Your task to perform on an android device: Search for acer predator on amazon.com, select the first entry, and add it to the cart. Image 0: 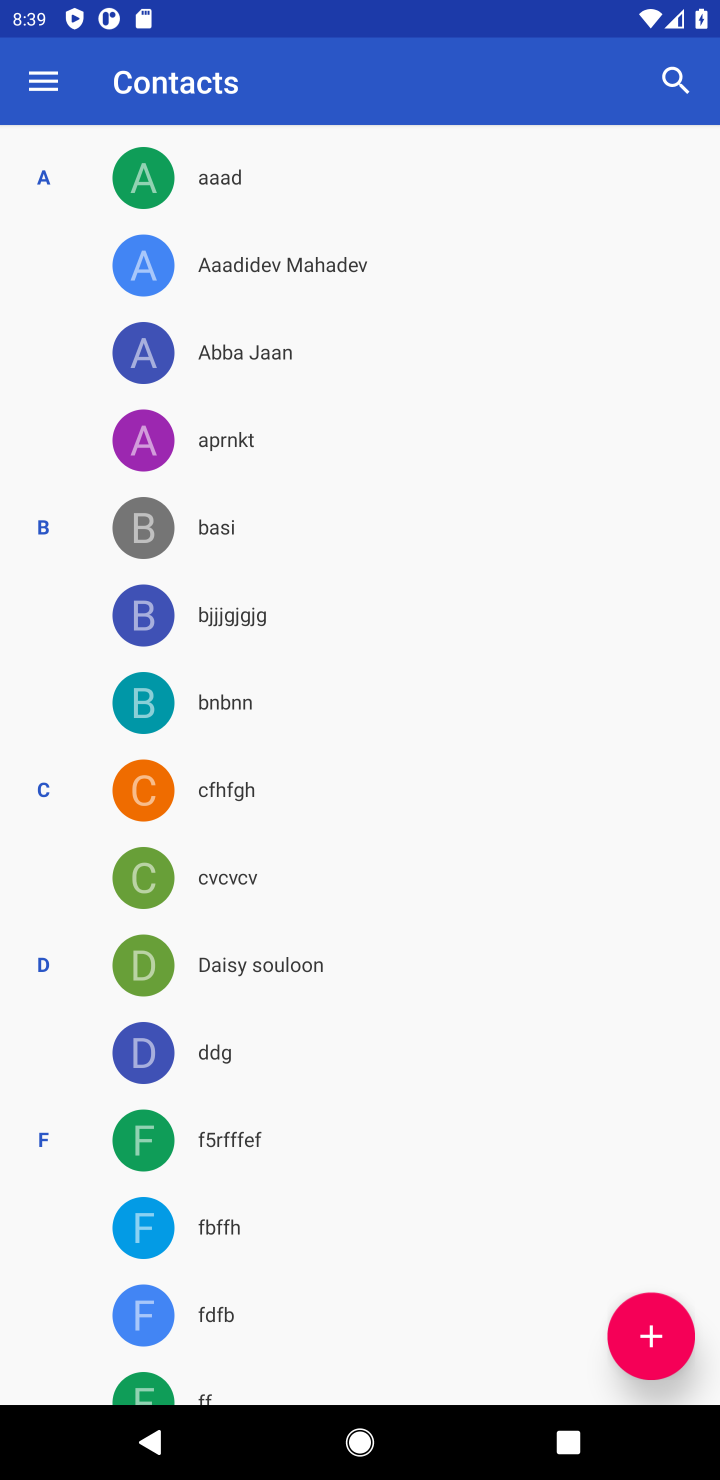
Step 0: press home button
Your task to perform on an android device: Search for acer predator on amazon.com, select the first entry, and add it to the cart. Image 1: 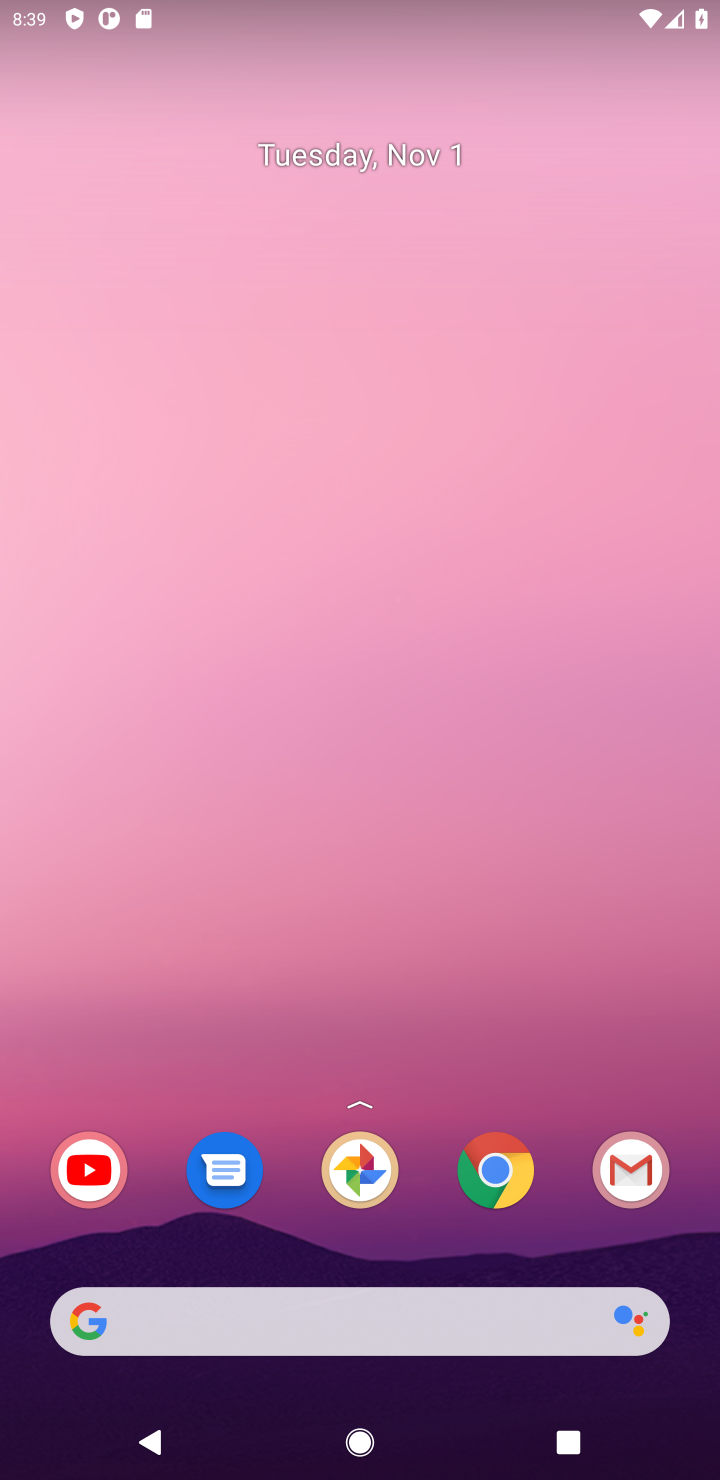
Step 1: click (508, 1184)
Your task to perform on an android device: Search for acer predator on amazon.com, select the first entry, and add it to the cart. Image 2: 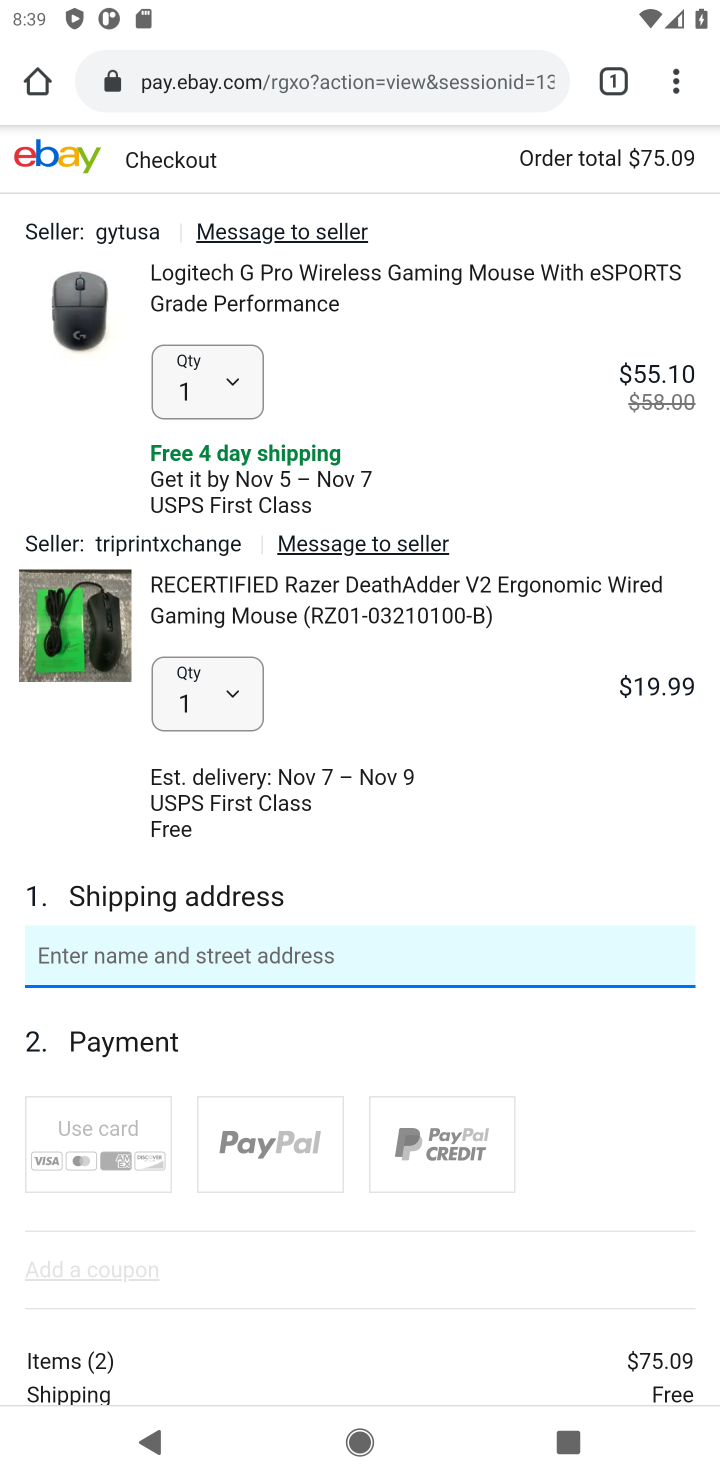
Step 2: click (336, 72)
Your task to perform on an android device: Search for acer predator on amazon.com, select the first entry, and add it to the cart. Image 3: 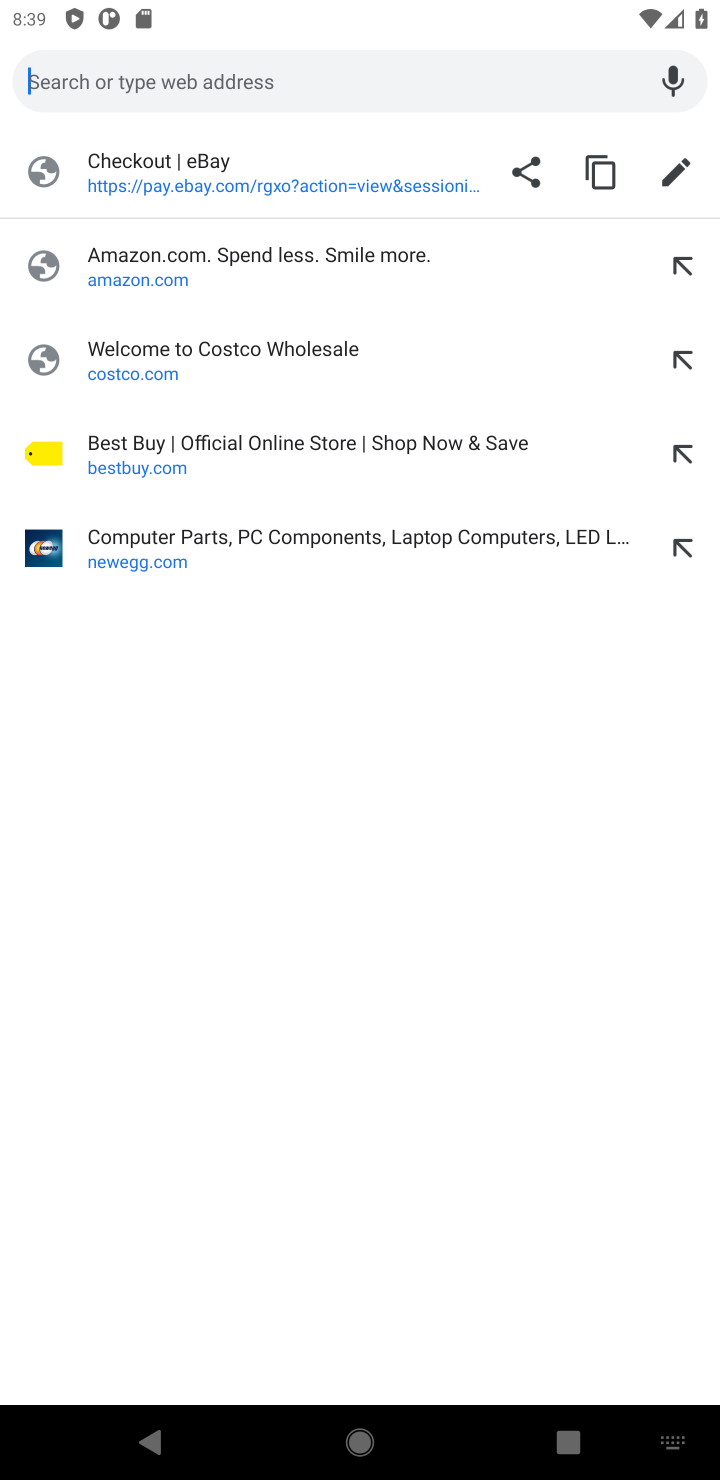
Step 3: type "amazon.com"
Your task to perform on an android device: Search for acer predator on amazon.com, select the first entry, and add it to the cart. Image 4: 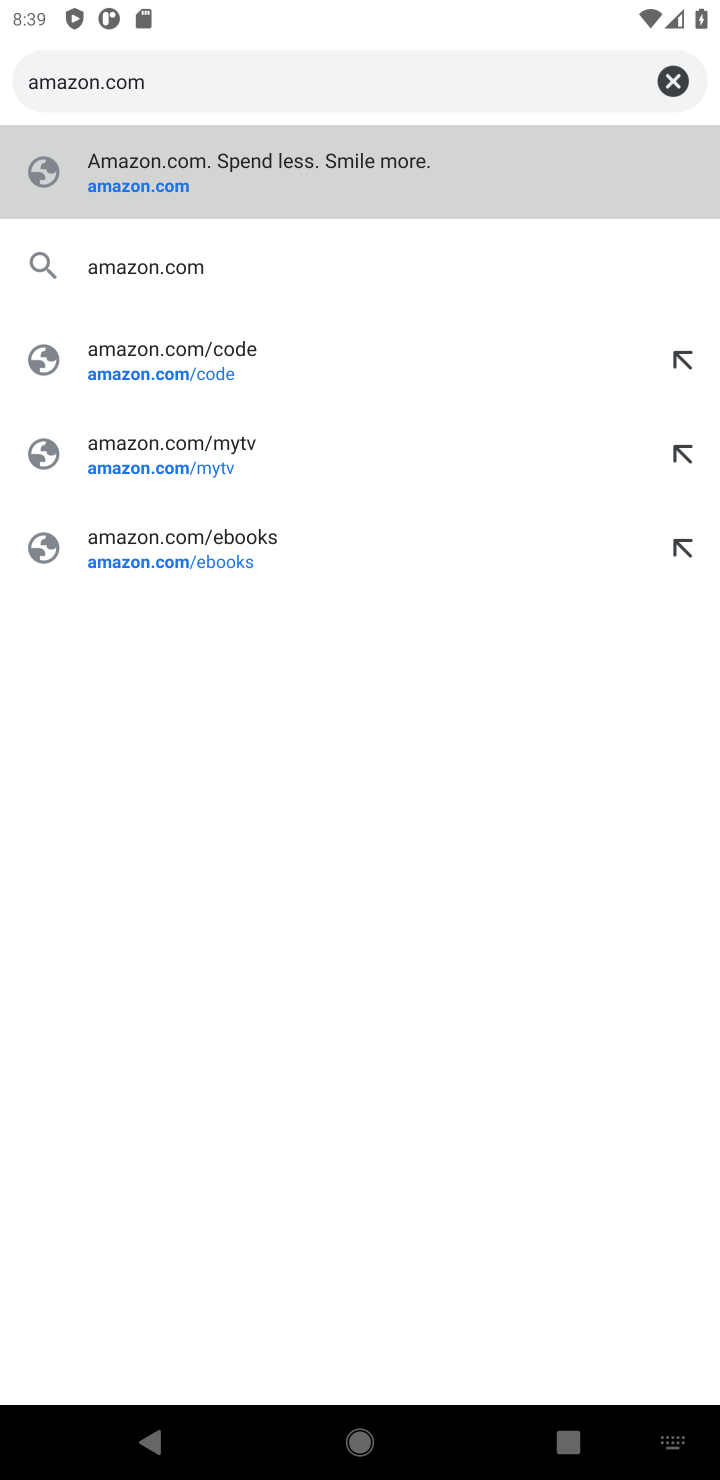
Step 4: type ""
Your task to perform on an android device: Search for acer predator on amazon.com, select the first entry, and add it to the cart. Image 5: 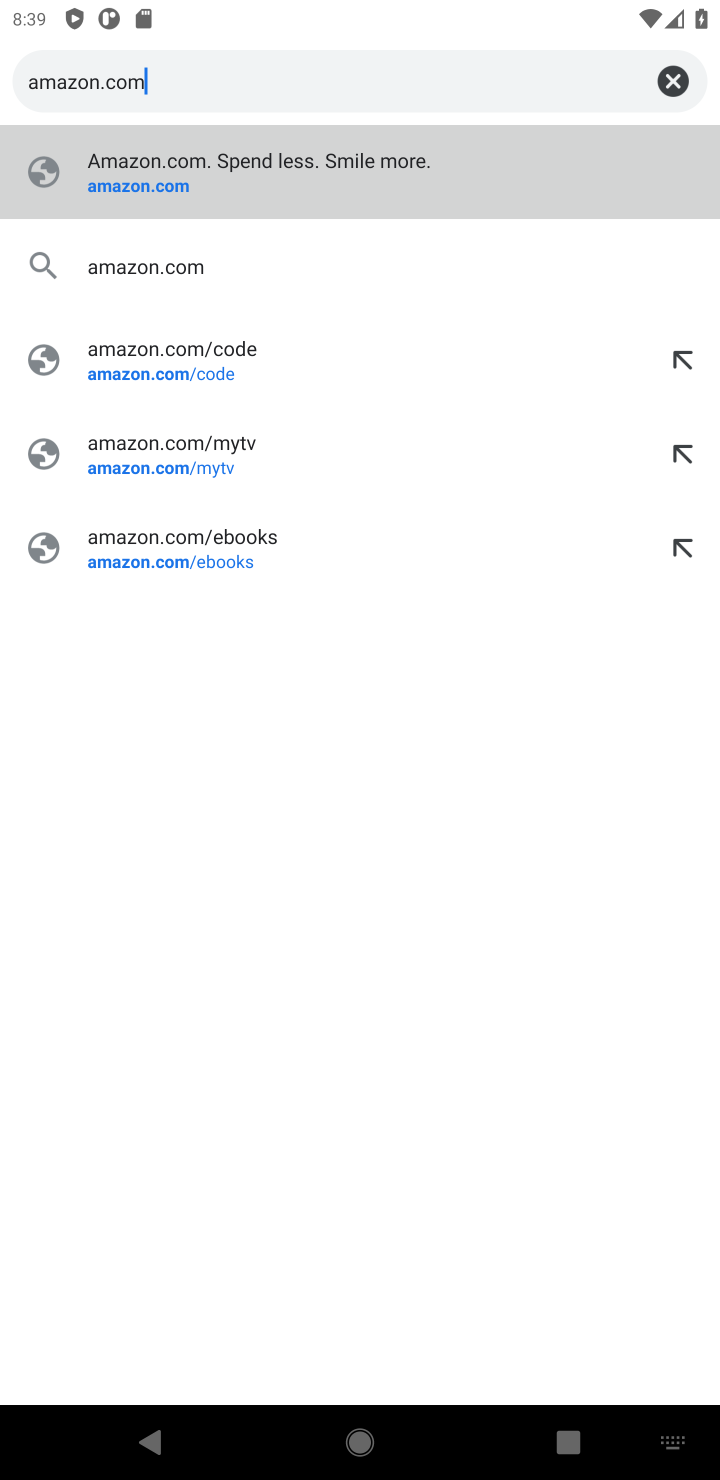
Step 5: type ""
Your task to perform on an android device: Search for acer predator on amazon.com, select the first entry, and add it to the cart. Image 6: 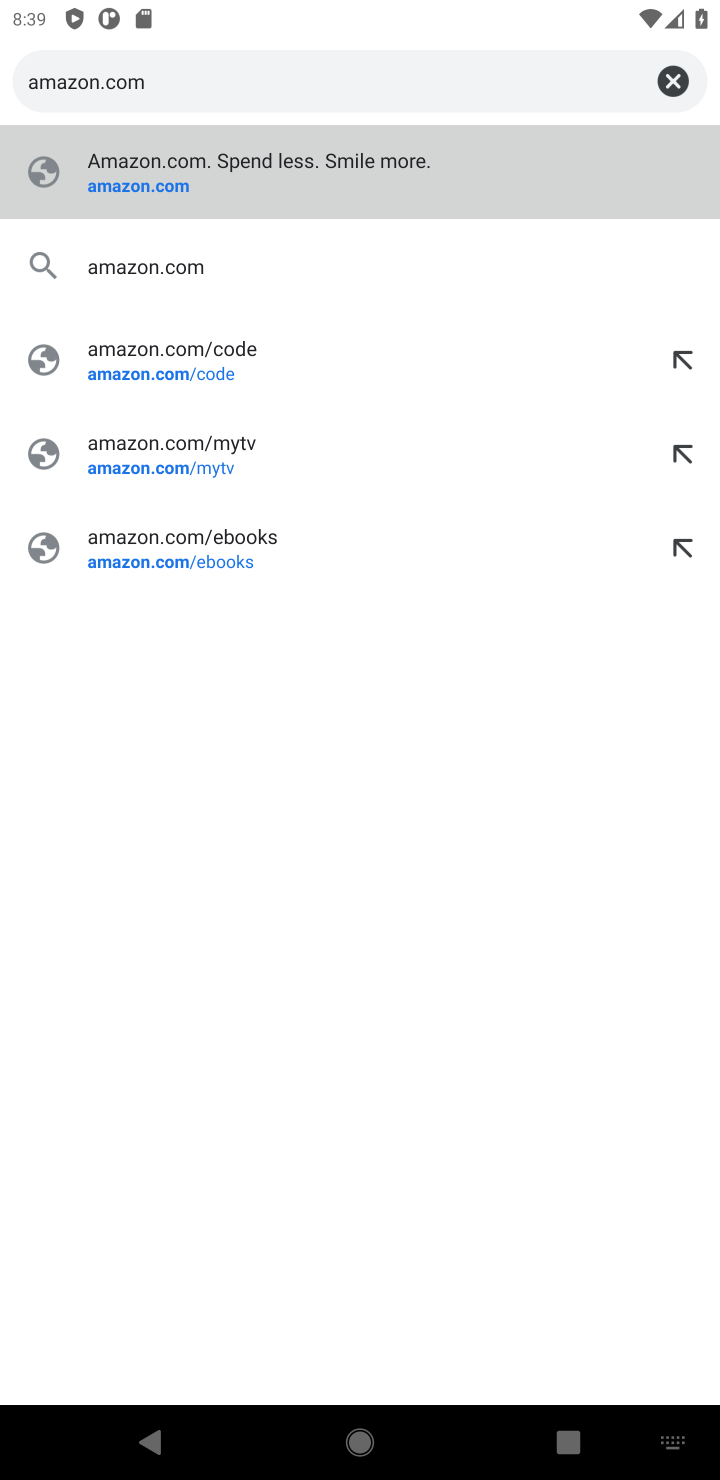
Step 6: press enter
Your task to perform on an android device: Search for acer predator on amazon.com, select the first entry, and add it to the cart. Image 7: 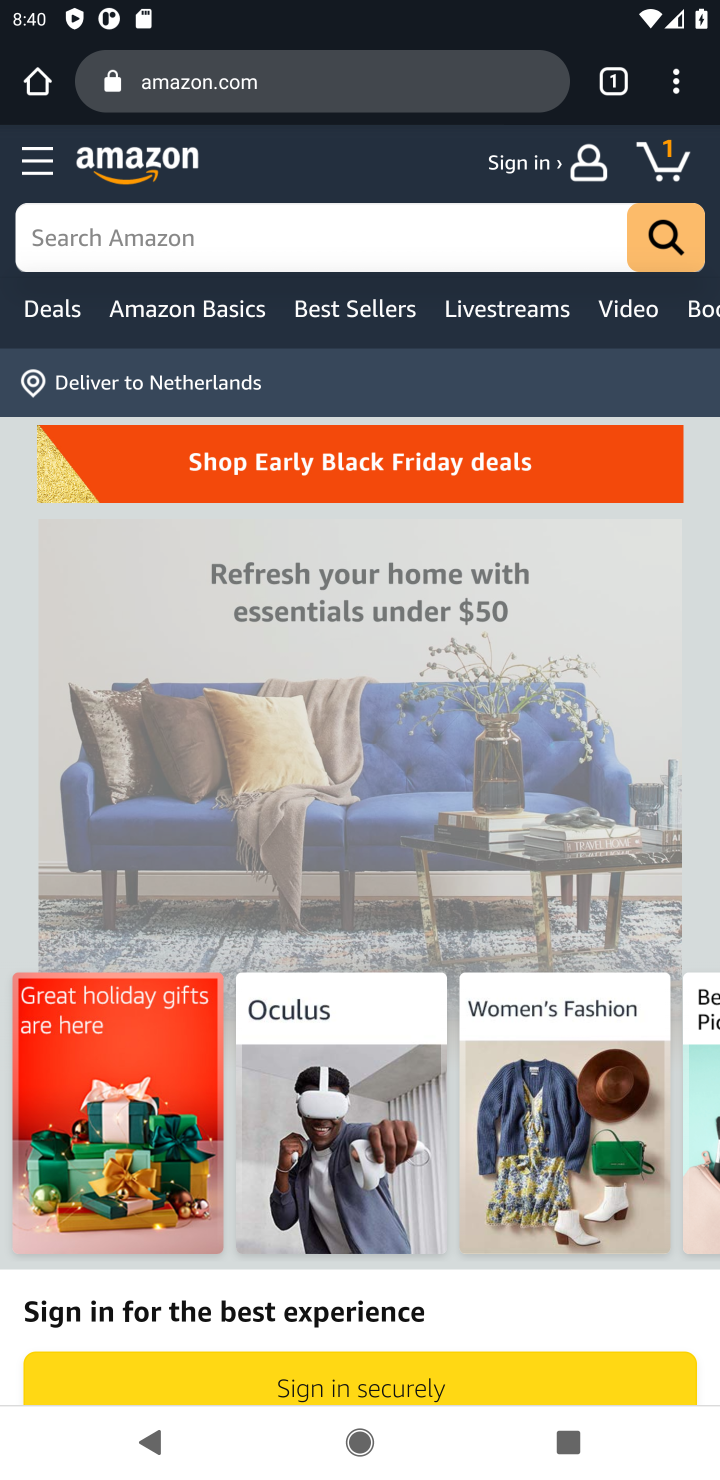
Step 7: click (299, 245)
Your task to perform on an android device: Search for acer predator on amazon.com, select the first entry, and add it to the cart. Image 8: 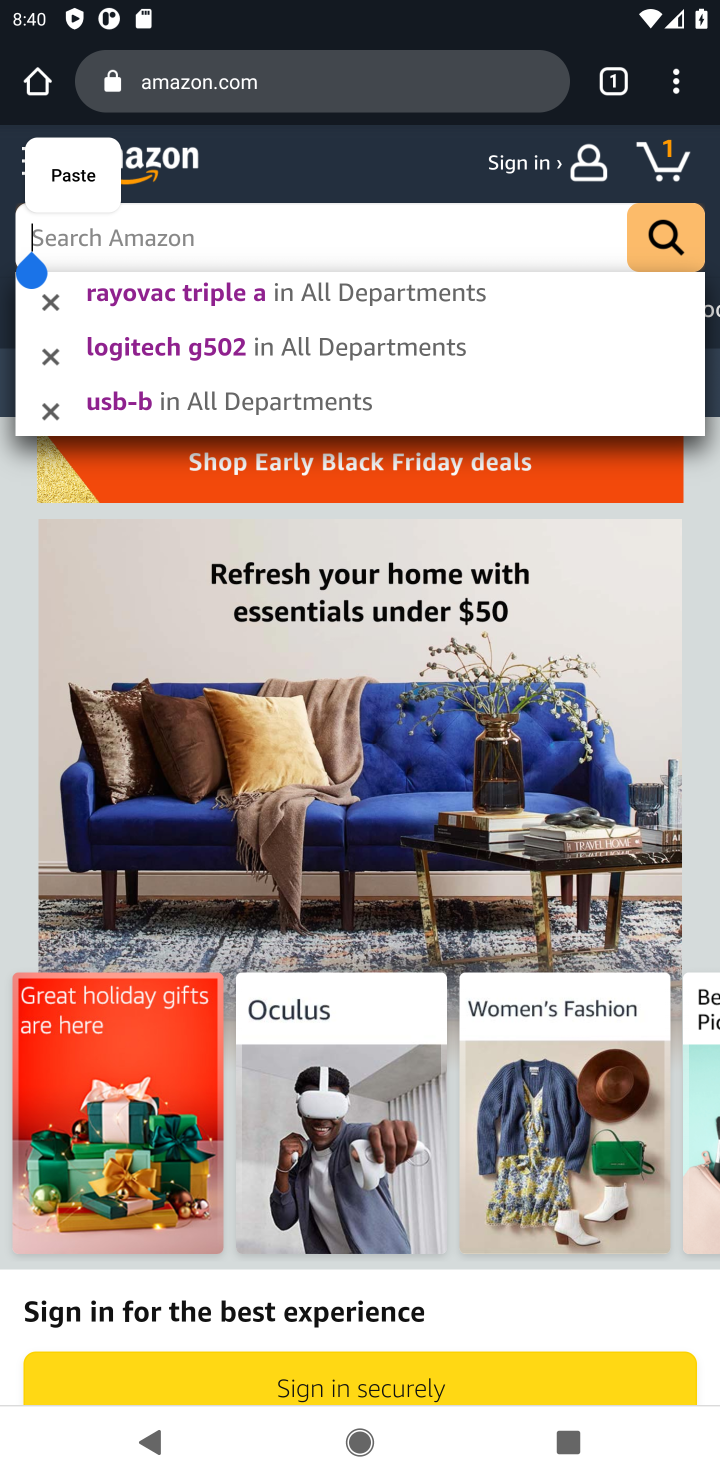
Step 8: click (226, 1164)
Your task to perform on an android device: Search for acer predator on amazon.com, select the first entry, and add it to the cart. Image 9: 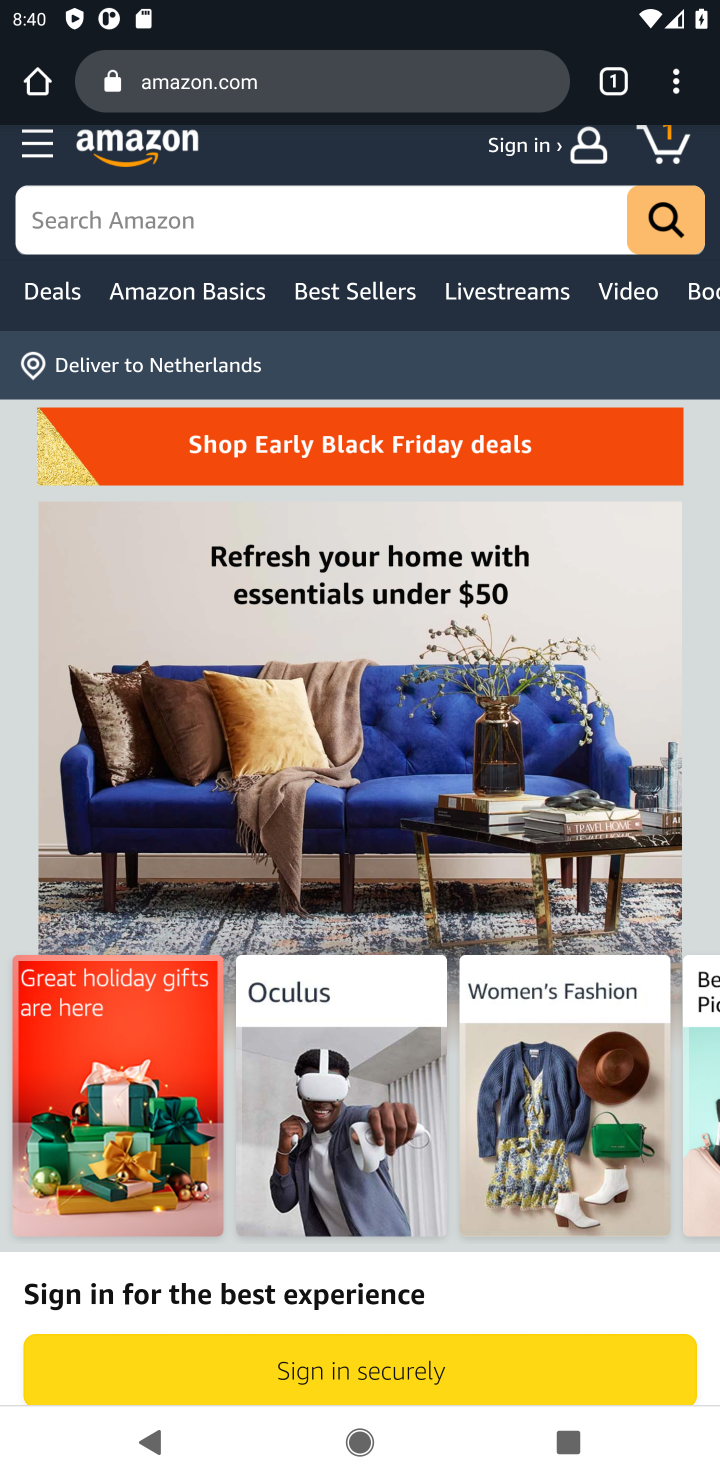
Step 9: click (314, 227)
Your task to perform on an android device: Search for acer predator on amazon.com, select the first entry, and add it to the cart. Image 10: 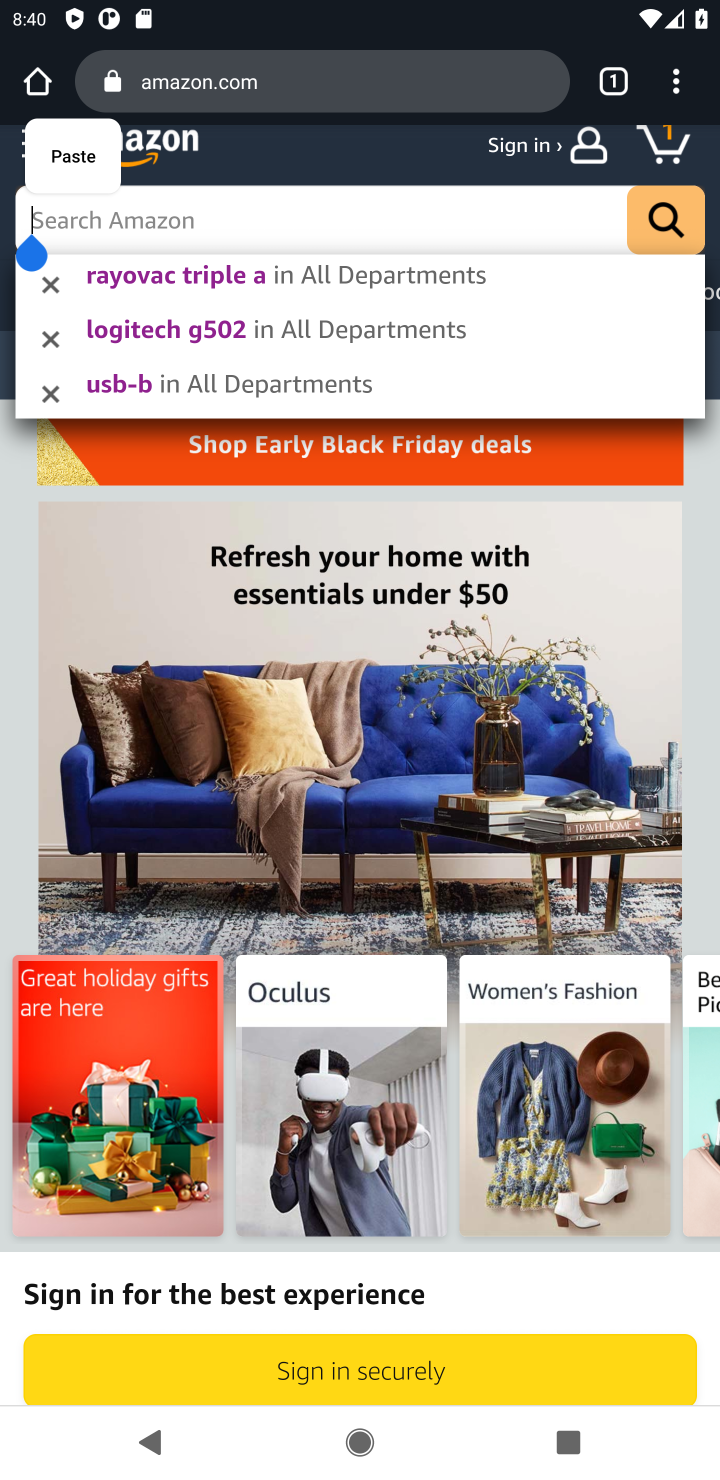
Step 10: type "acer predator"
Your task to perform on an android device: Search for acer predator on amazon.com, select the first entry, and add it to the cart. Image 11: 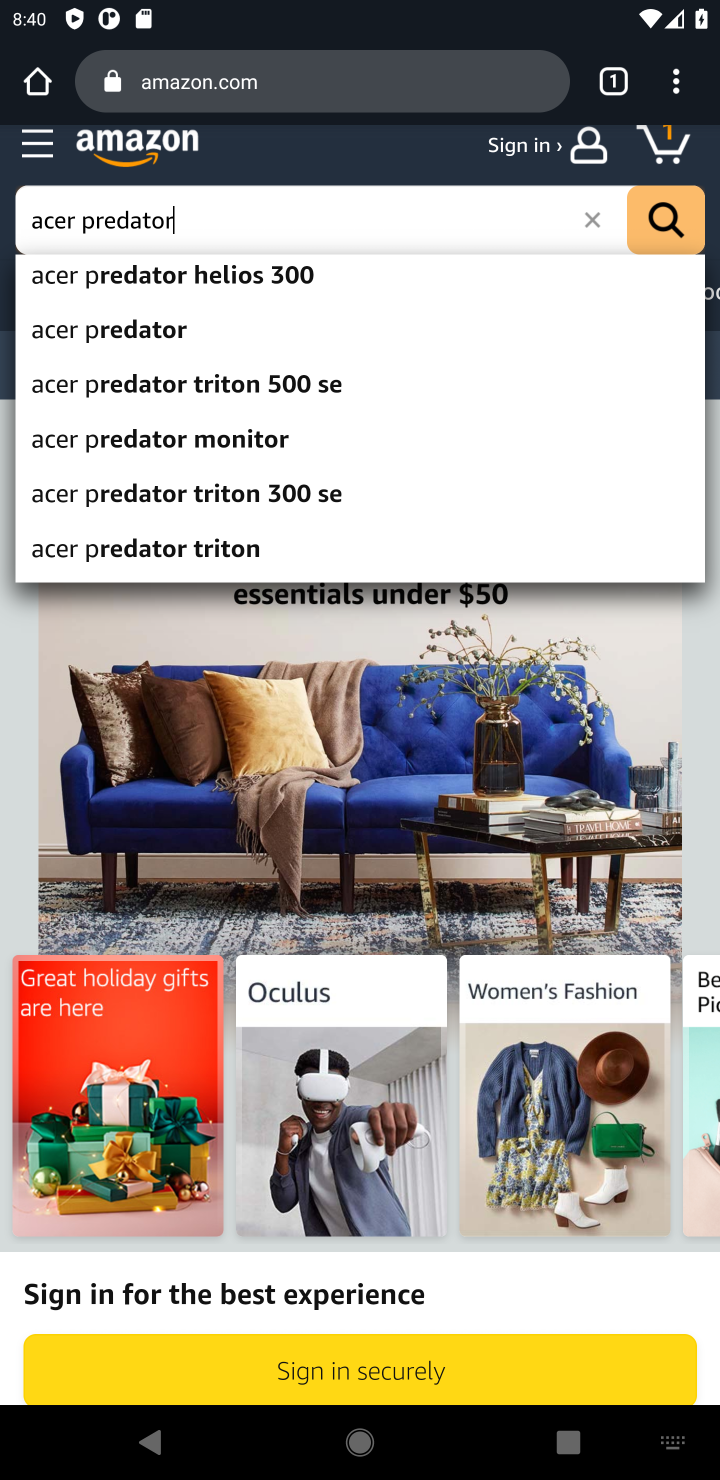
Step 11: type ""
Your task to perform on an android device: Search for acer predator on amazon.com, select the first entry, and add it to the cart. Image 12: 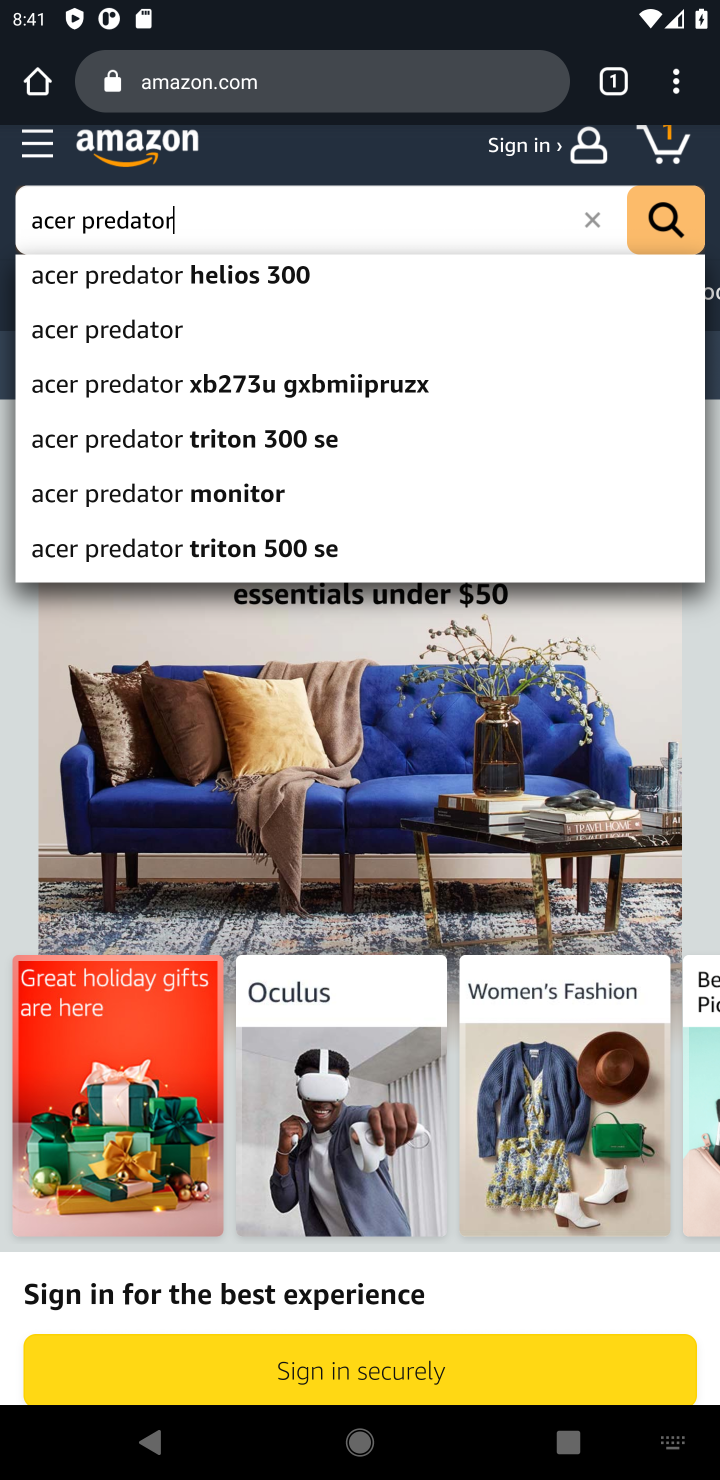
Step 12: press enter
Your task to perform on an android device: Search for acer predator on amazon.com, select the first entry, and add it to the cart. Image 13: 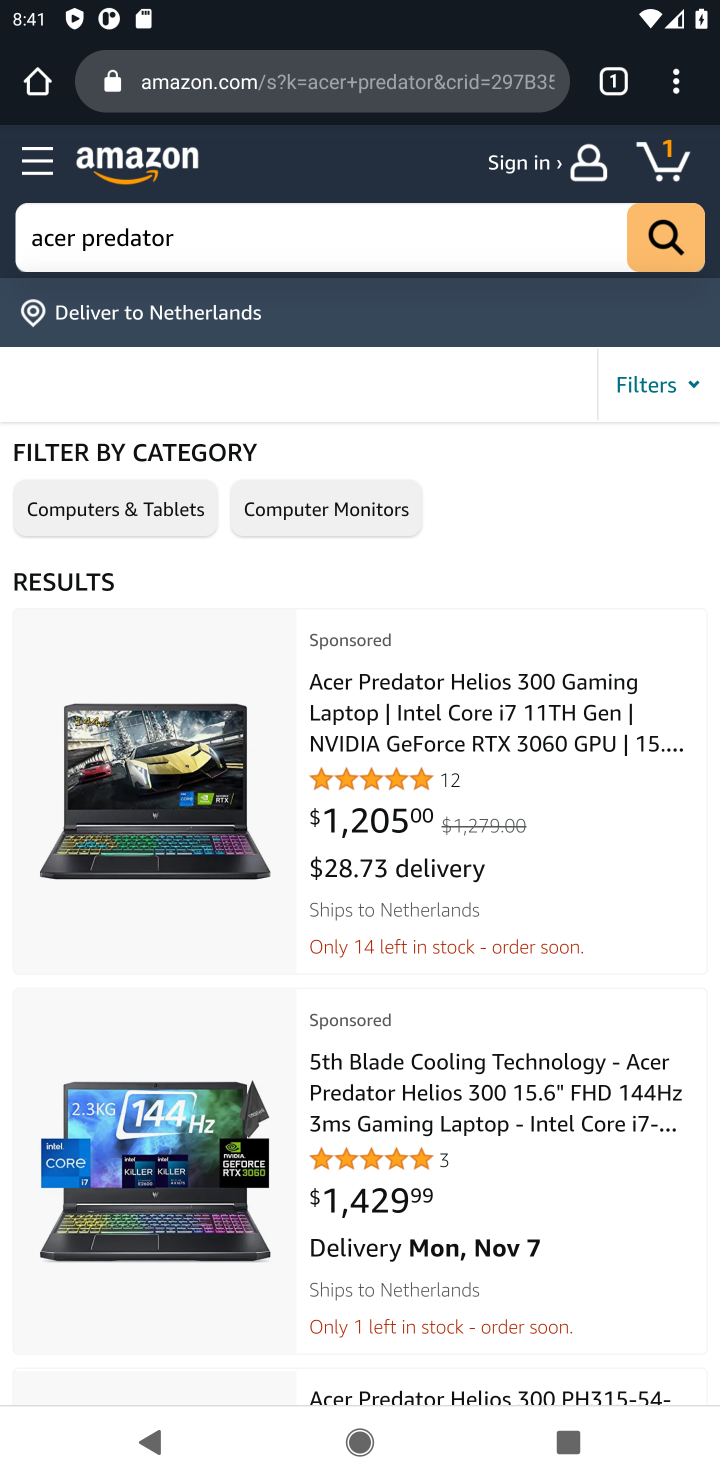
Step 13: click (452, 732)
Your task to perform on an android device: Search for acer predator on amazon.com, select the first entry, and add it to the cart. Image 14: 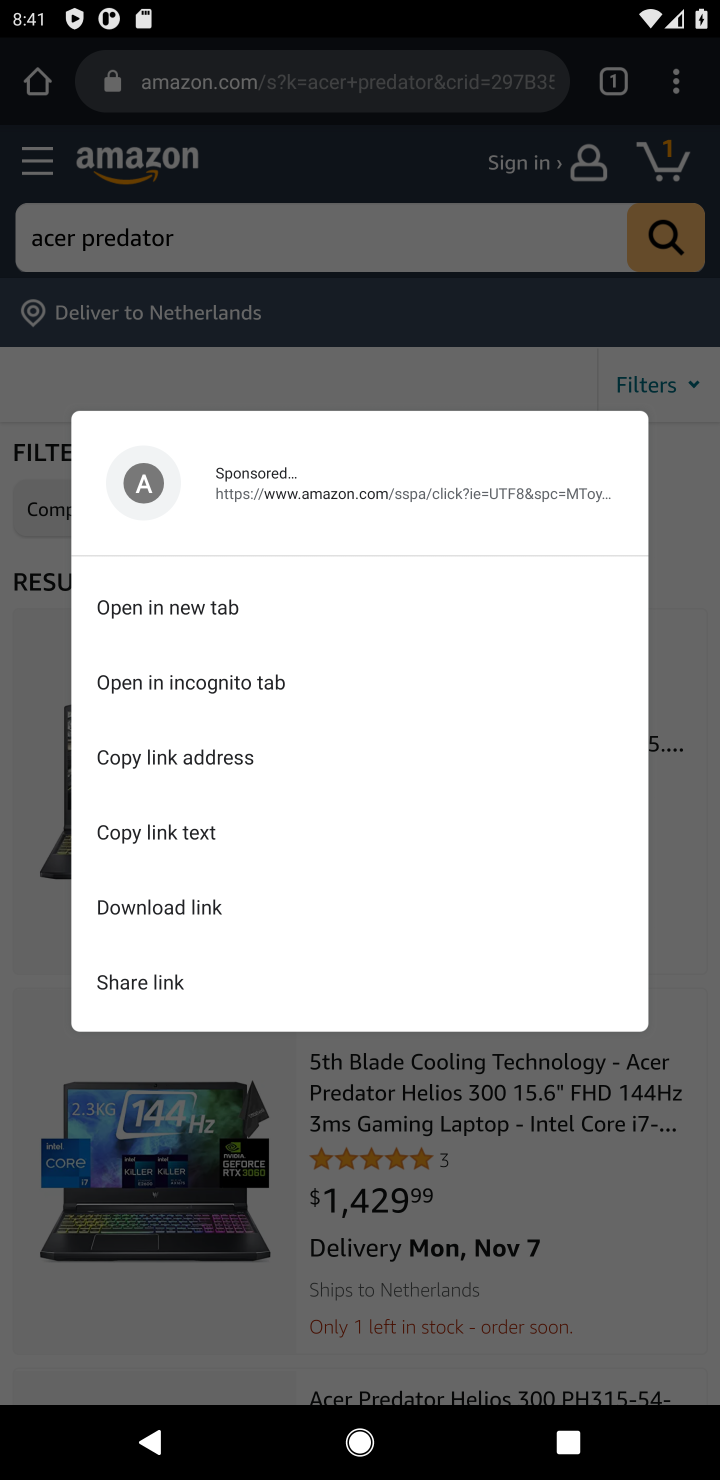
Step 14: click (416, 1125)
Your task to perform on an android device: Search for acer predator on amazon.com, select the first entry, and add it to the cart. Image 15: 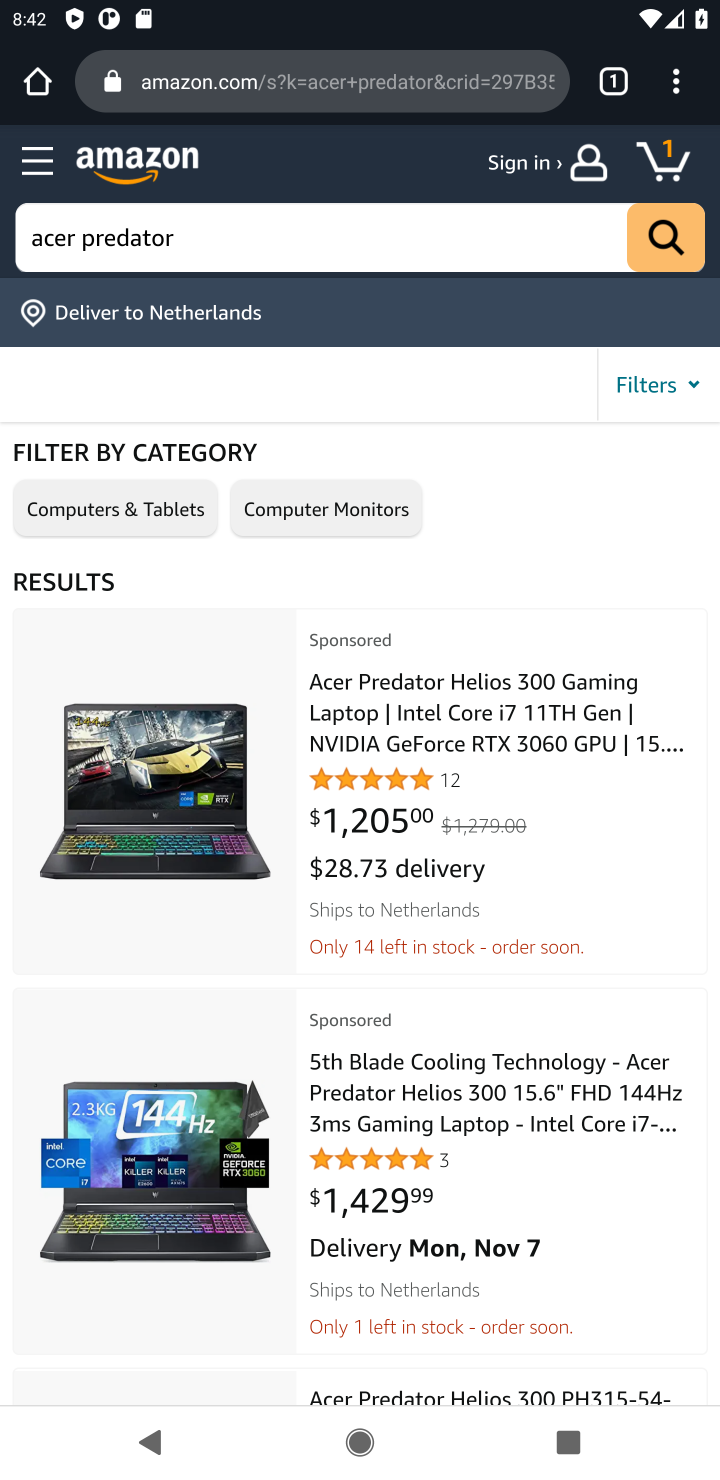
Step 15: click (452, 746)
Your task to perform on an android device: Search for acer predator on amazon.com, select the first entry, and add it to the cart. Image 16: 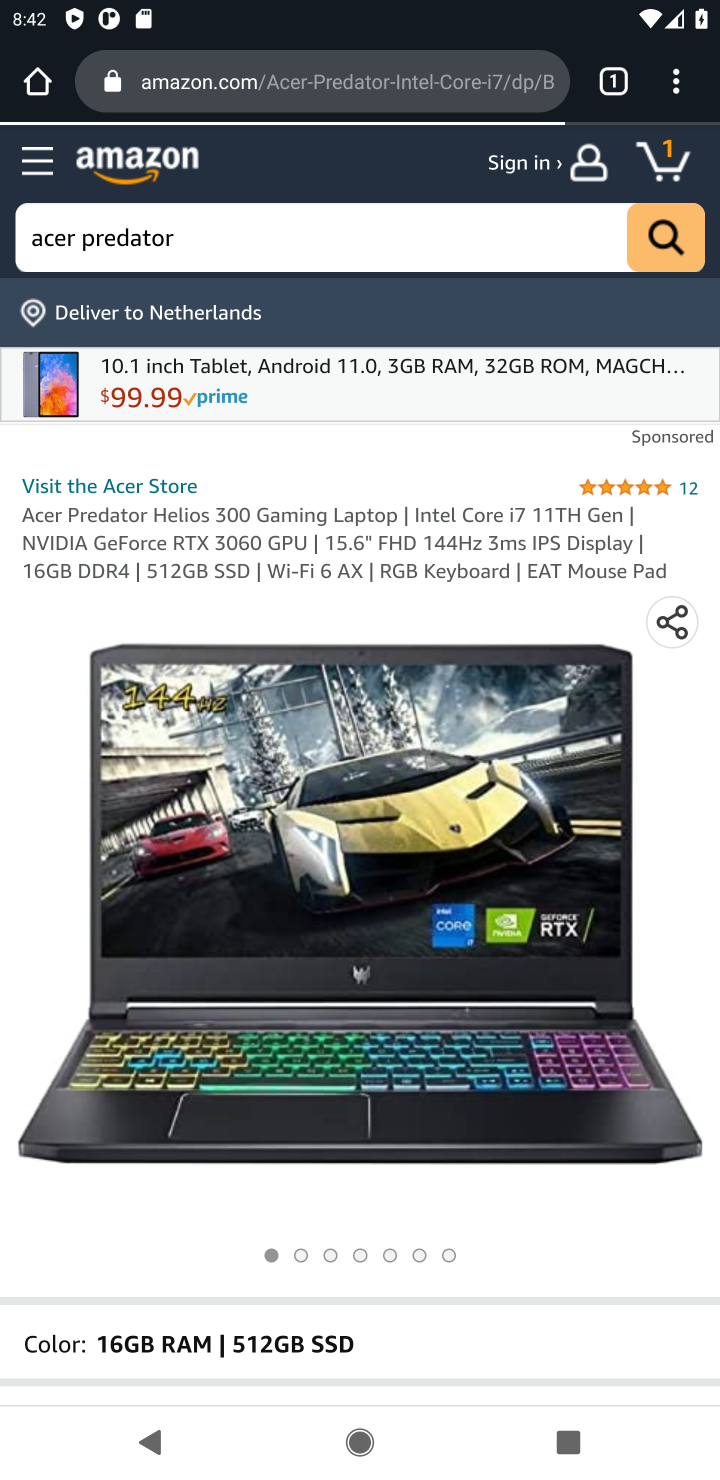
Step 16: drag from (536, 1005) to (443, 762)
Your task to perform on an android device: Search for acer predator on amazon.com, select the first entry, and add it to the cart. Image 17: 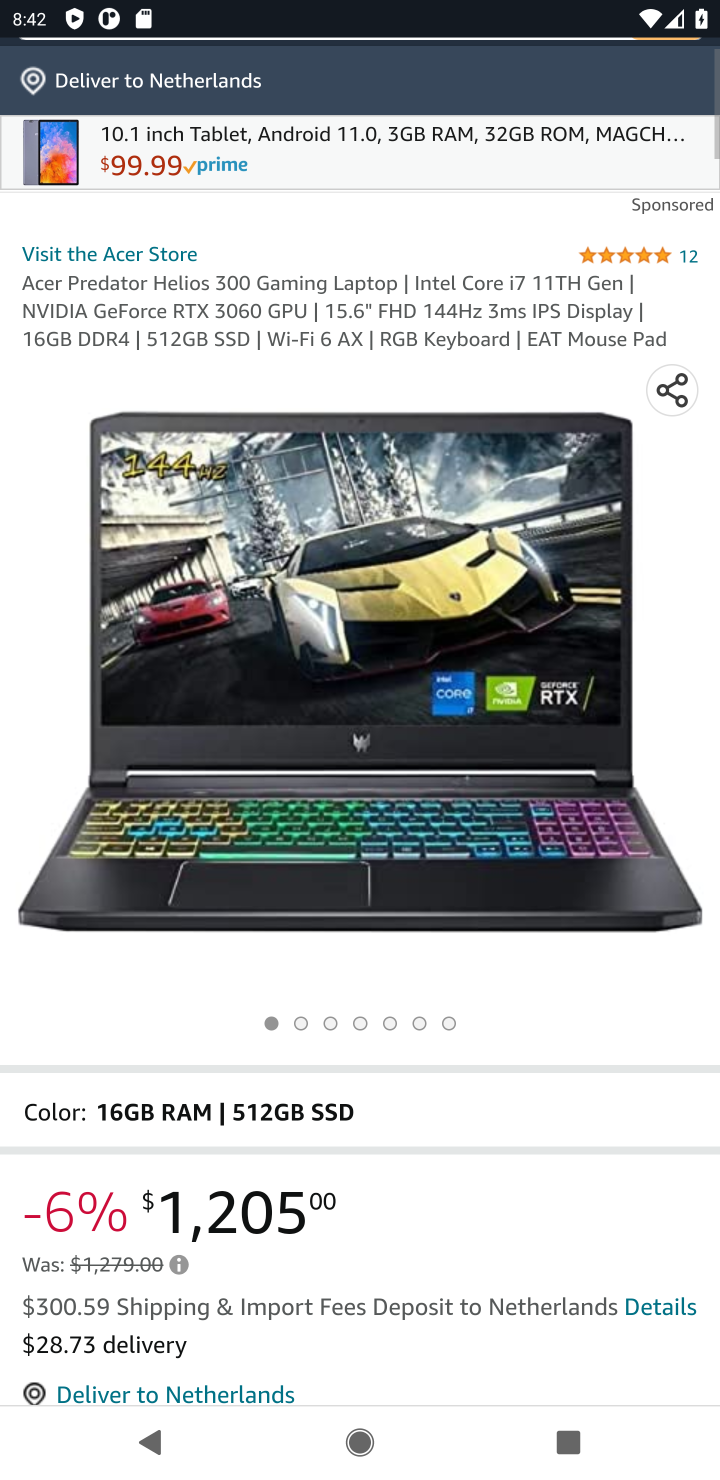
Step 17: drag from (367, 984) to (355, 835)
Your task to perform on an android device: Search for acer predator on amazon.com, select the first entry, and add it to the cart. Image 18: 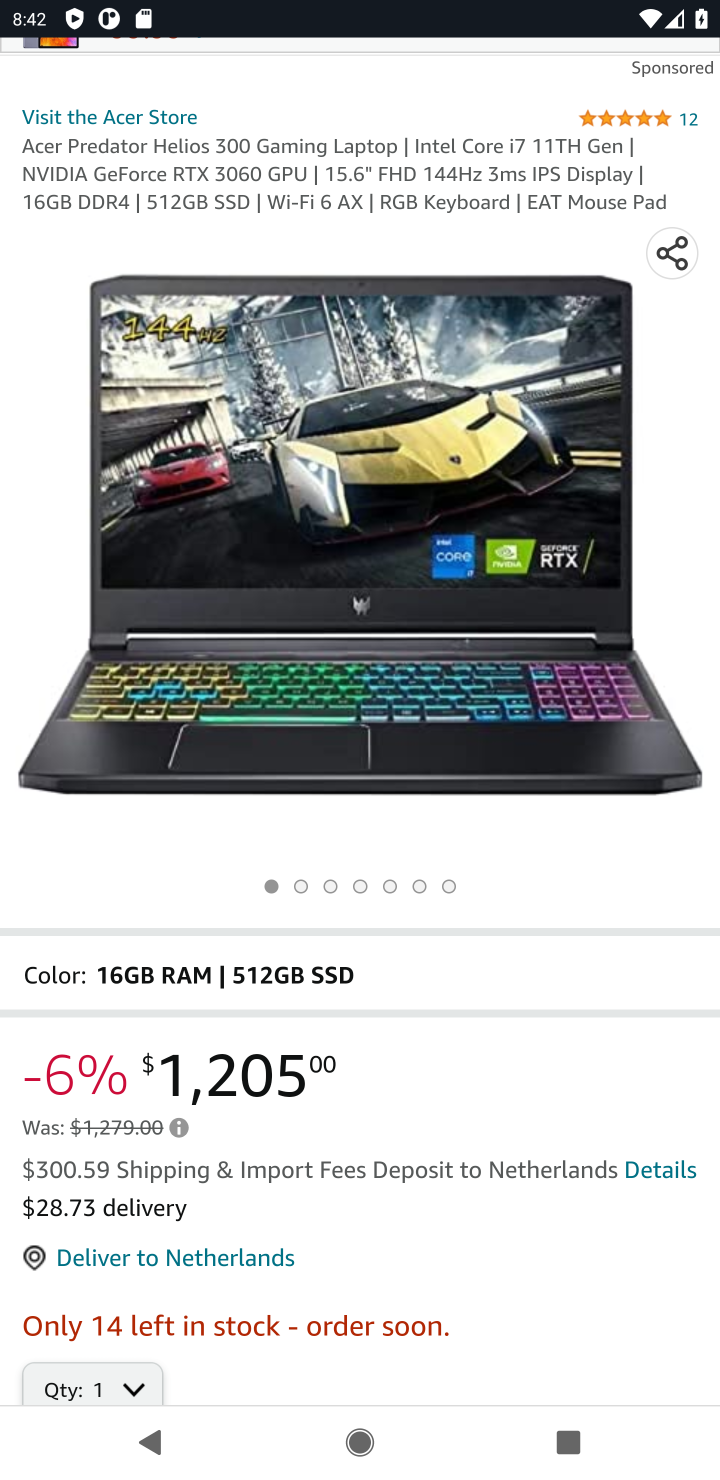
Step 18: drag from (423, 1208) to (350, 751)
Your task to perform on an android device: Search for acer predator on amazon.com, select the first entry, and add it to the cart. Image 19: 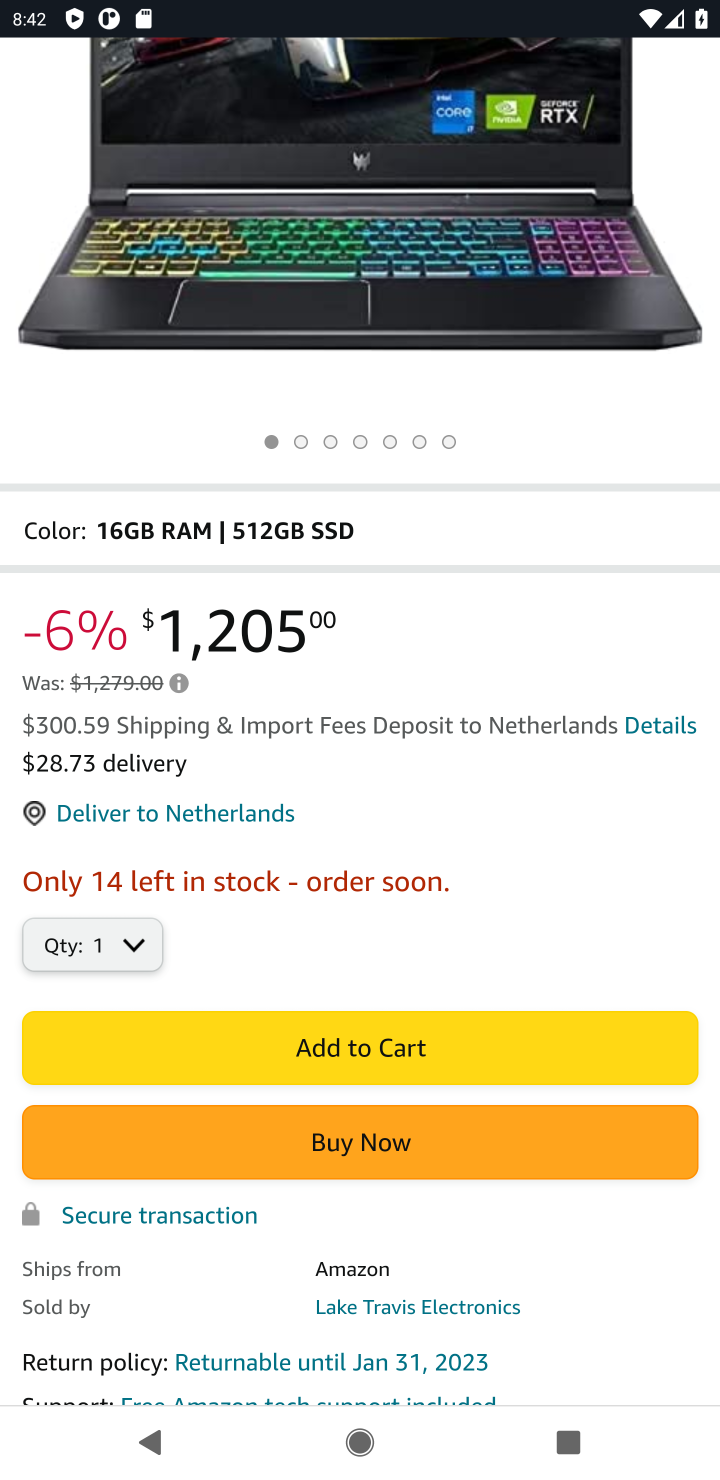
Step 19: click (427, 1043)
Your task to perform on an android device: Search for acer predator on amazon.com, select the first entry, and add it to the cart. Image 20: 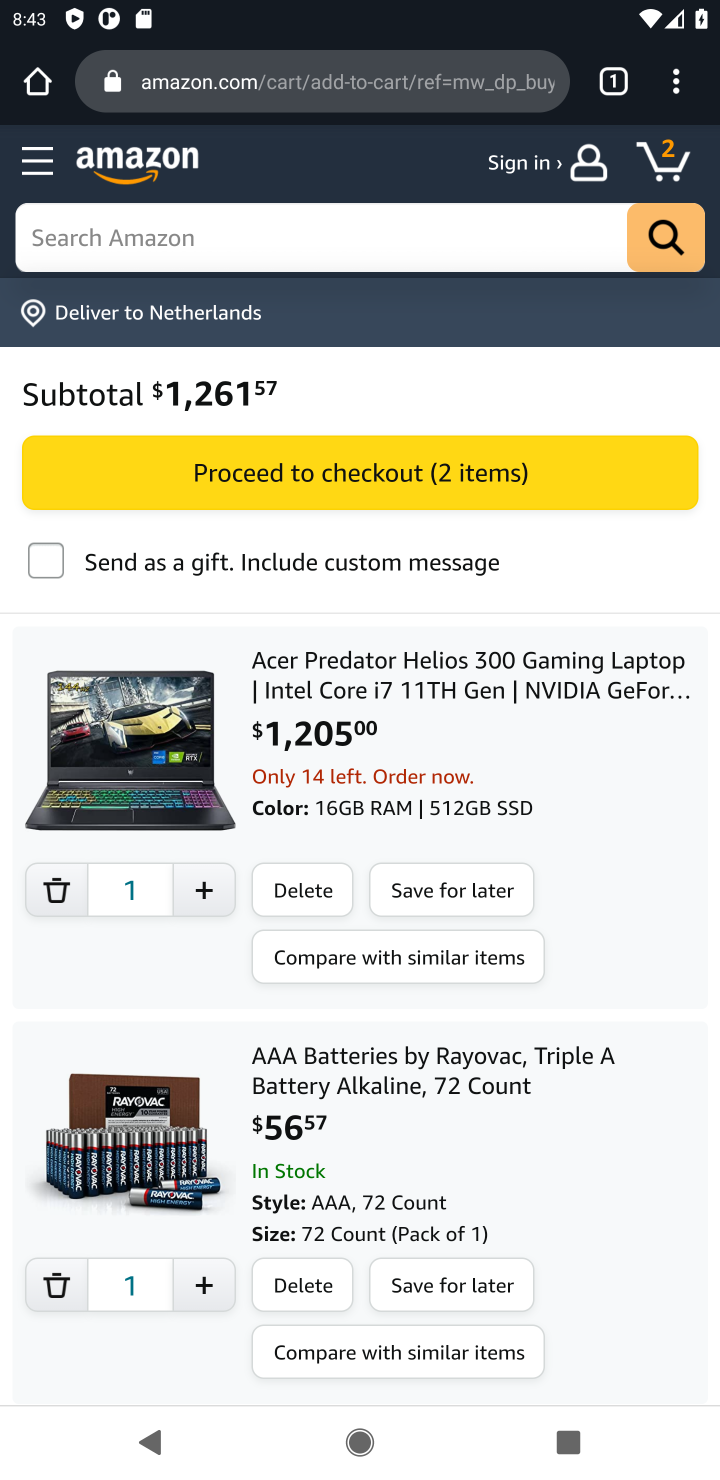
Step 20: task complete